Your task to perform on an android device: empty trash in the gmail app Image 0: 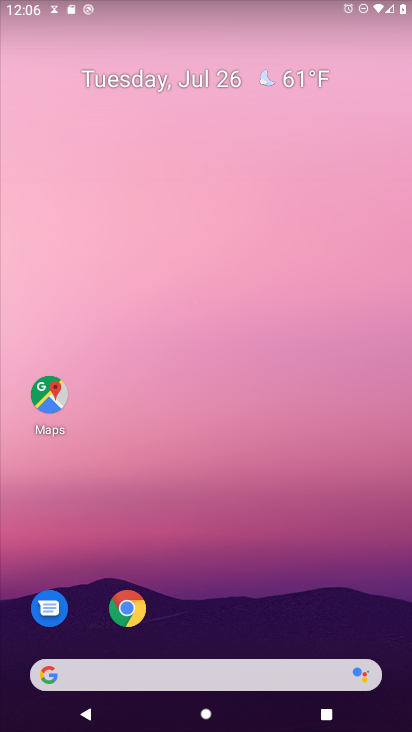
Step 0: drag from (176, 677) to (233, 98)
Your task to perform on an android device: empty trash in the gmail app Image 1: 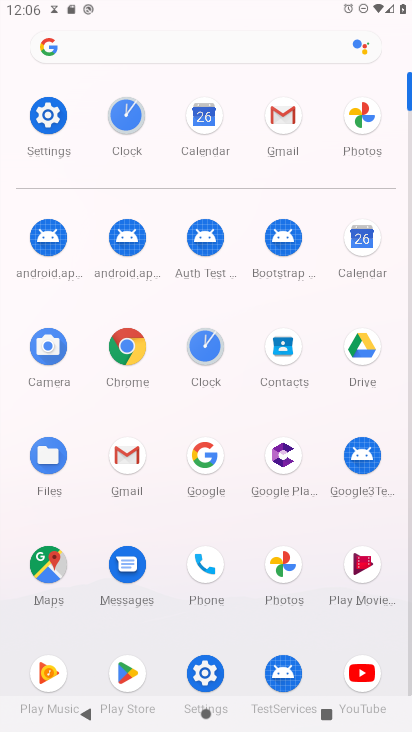
Step 1: click (282, 116)
Your task to perform on an android device: empty trash in the gmail app Image 2: 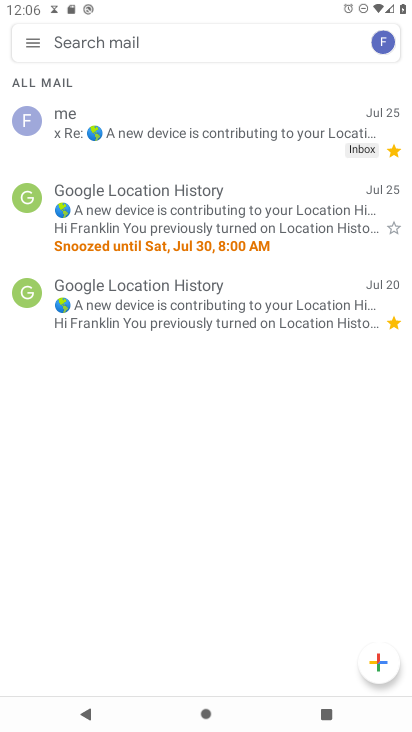
Step 2: click (34, 48)
Your task to perform on an android device: empty trash in the gmail app Image 3: 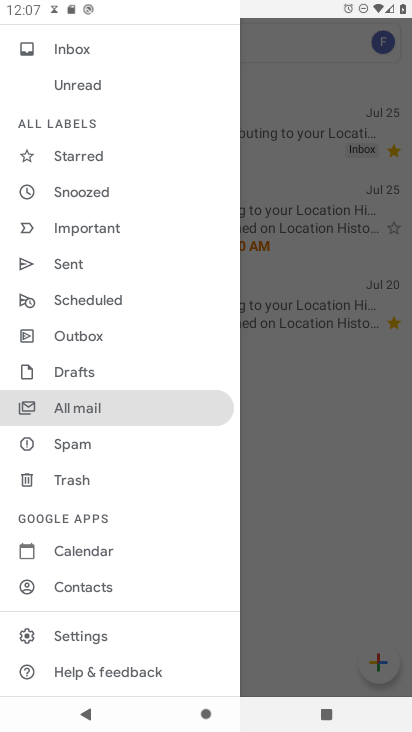
Step 3: click (64, 480)
Your task to perform on an android device: empty trash in the gmail app Image 4: 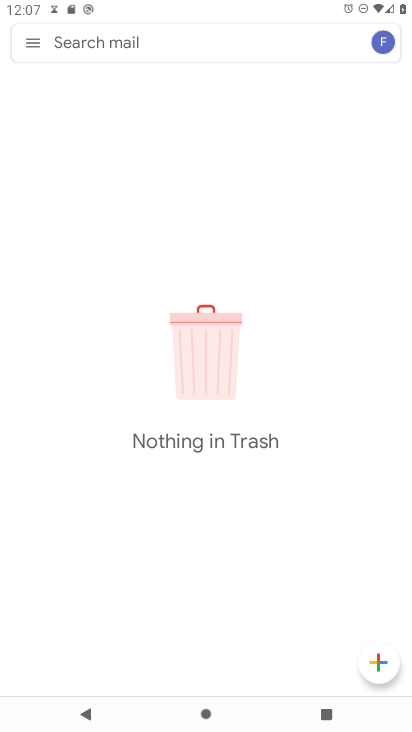
Step 4: task complete